Your task to perform on an android device: add a label to a message in the gmail app Image 0: 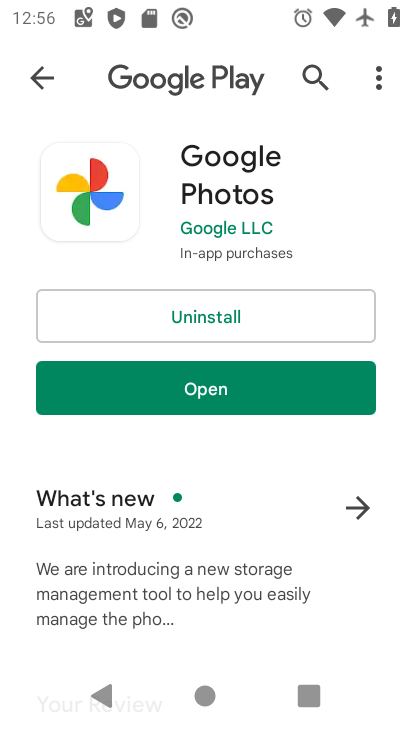
Step 0: click (277, 375)
Your task to perform on an android device: add a label to a message in the gmail app Image 1: 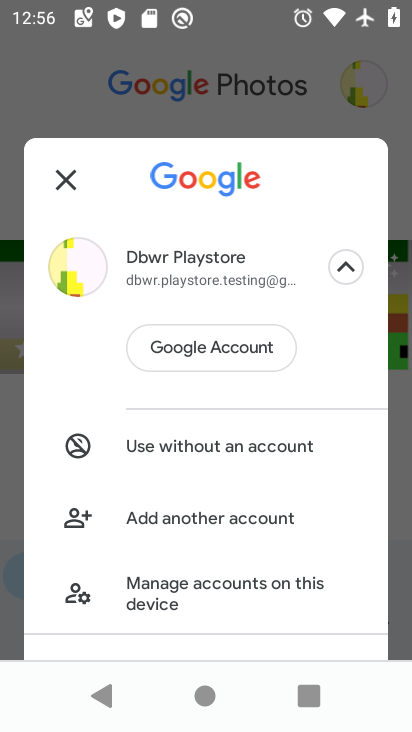
Step 1: click (55, 175)
Your task to perform on an android device: add a label to a message in the gmail app Image 2: 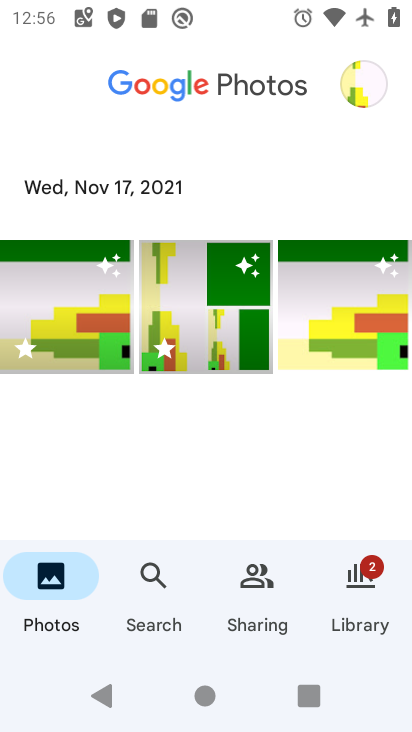
Step 2: press home button
Your task to perform on an android device: add a label to a message in the gmail app Image 3: 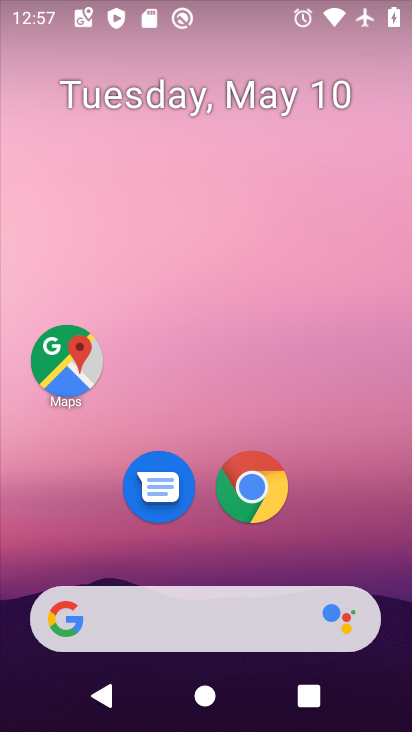
Step 3: drag from (316, 528) to (256, 2)
Your task to perform on an android device: add a label to a message in the gmail app Image 4: 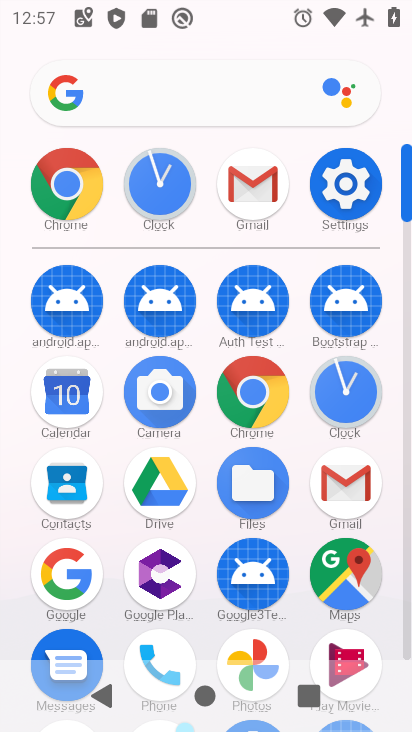
Step 4: click (334, 481)
Your task to perform on an android device: add a label to a message in the gmail app Image 5: 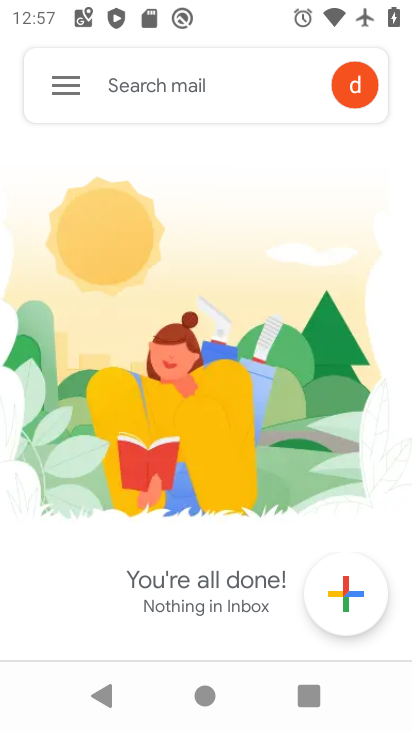
Step 5: click (51, 105)
Your task to perform on an android device: add a label to a message in the gmail app Image 6: 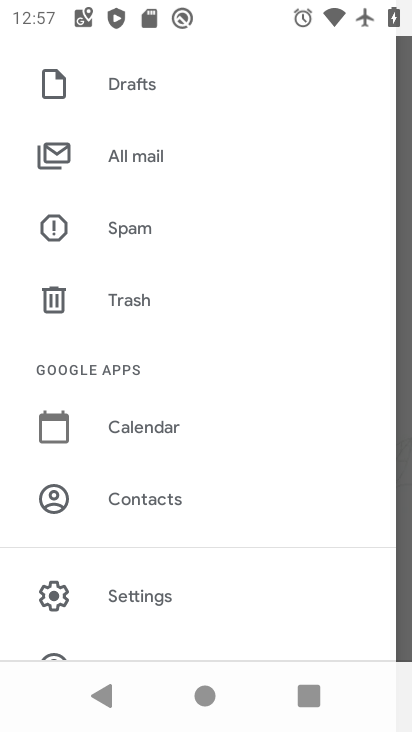
Step 6: click (172, 145)
Your task to perform on an android device: add a label to a message in the gmail app Image 7: 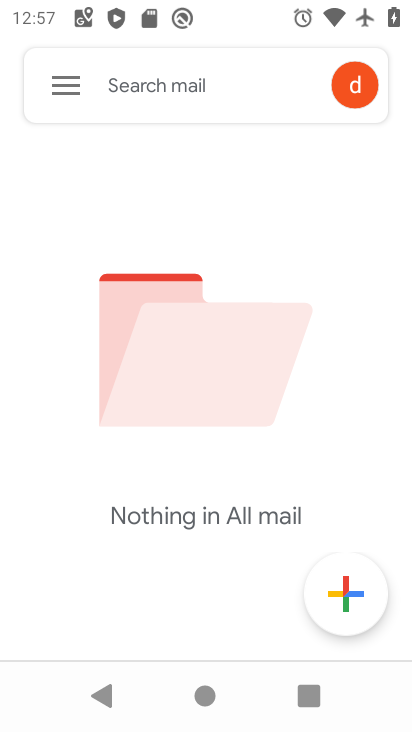
Step 7: task complete